Your task to perform on an android device: Search for "apple airpods pro" on walmart.com, select the first entry, add it to the cart, then select checkout. Image 0: 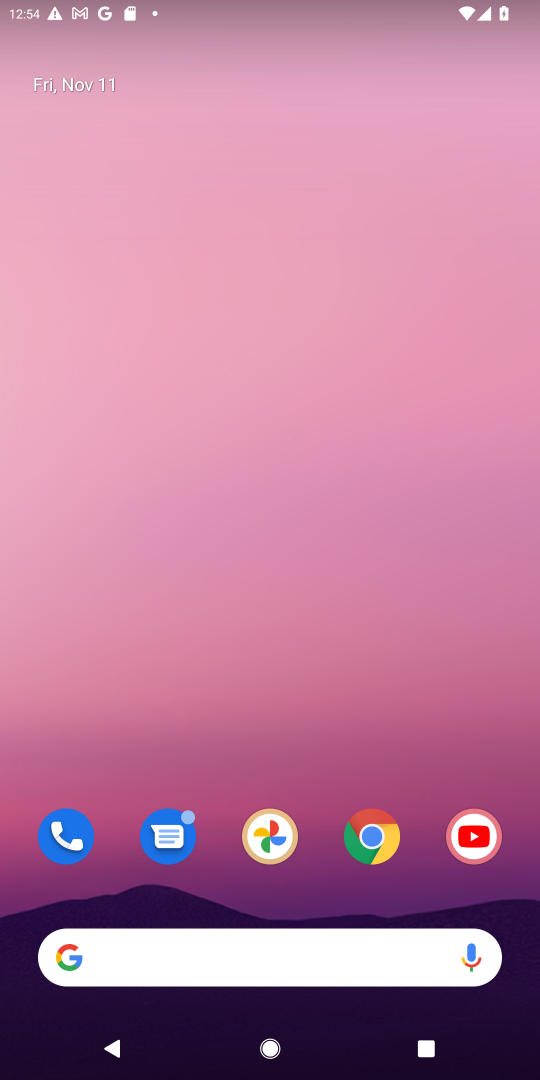
Step 0: click (262, 964)
Your task to perform on an android device: Search for "apple airpods pro" on walmart.com, select the first entry, add it to the cart, then select checkout. Image 1: 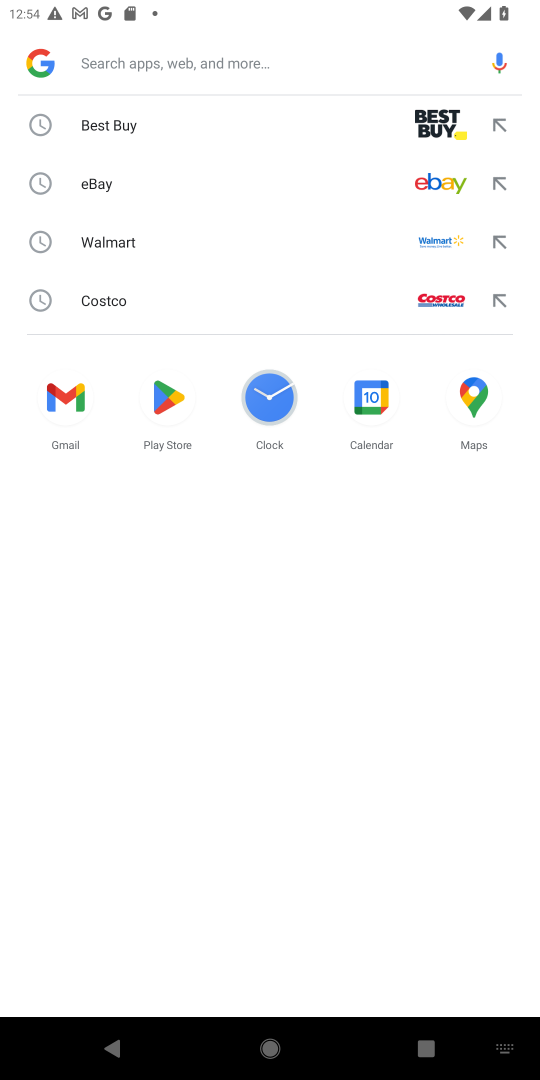
Step 1: click (147, 251)
Your task to perform on an android device: Search for "apple airpods pro" on walmart.com, select the first entry, add it to the cart, then select checkout. Image 2: 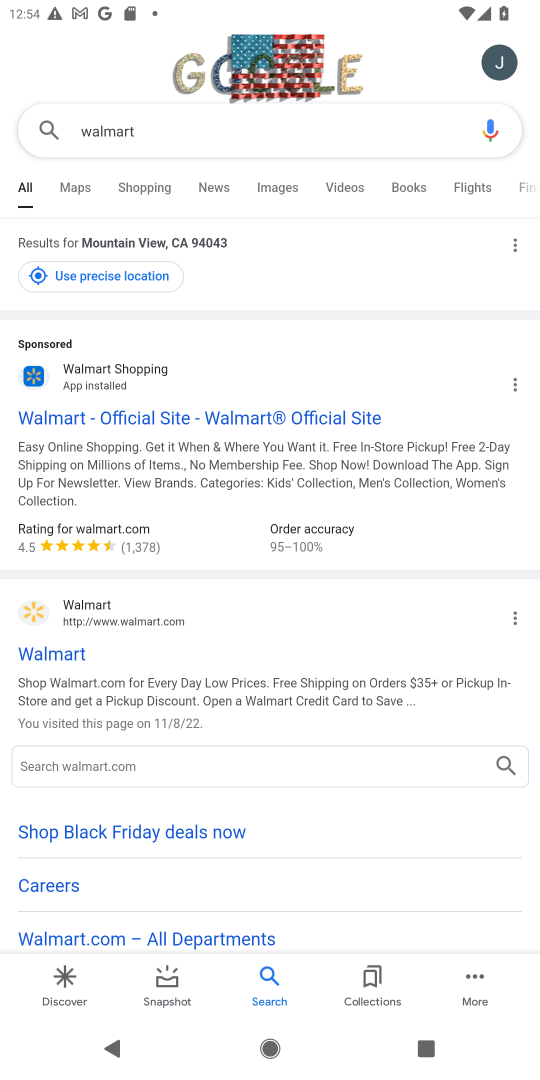
Step 2: click (53, 651)
Your task to perform on an android device: Search for "apple airpods pro" on walmart.com, select the first entry, add it to the cart, then select checkout. Image 3: 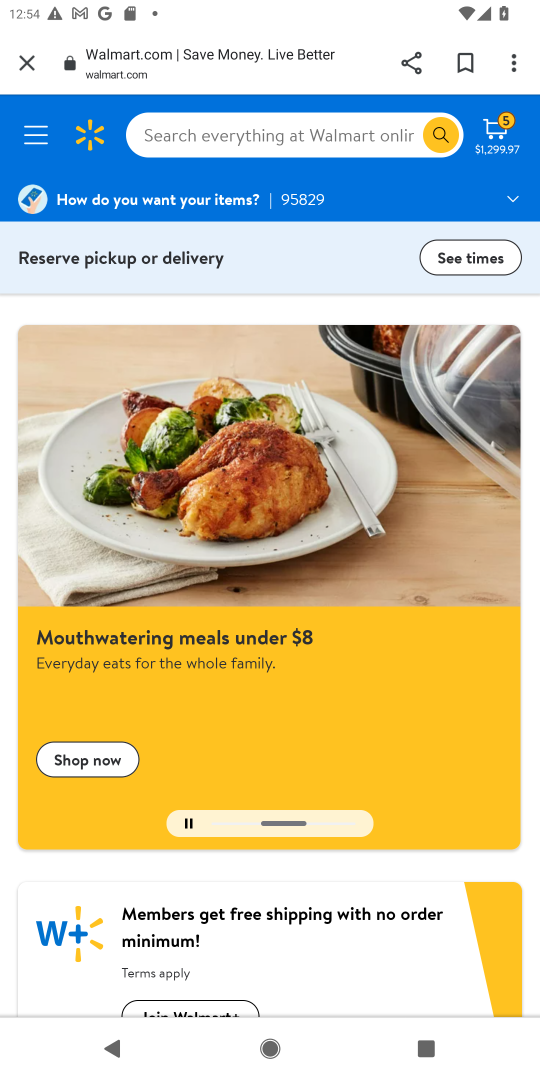
Step 3: click (289, 139)
Your task to perform on an android device: Search for "apple airpods pro" on walmart.com, select the first entry, add it to the cart, then select checkout. Image 4: 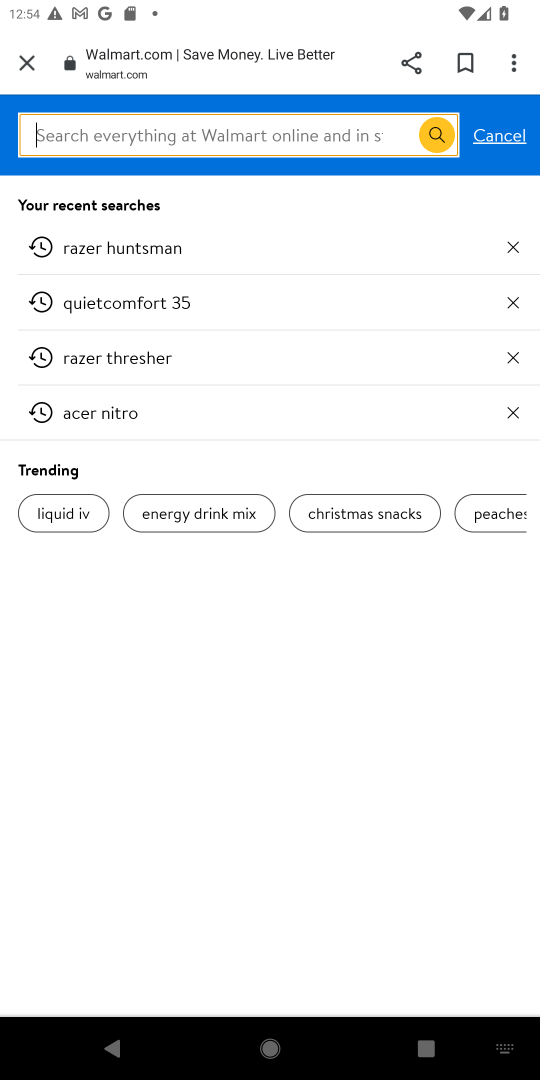
Step 4: type "apple airpods pro"
Your task to perform on an android device: Search for "apple airpods pro" on walmart.com, select the first entry, add it to the cart, then select checkout. Image 5: 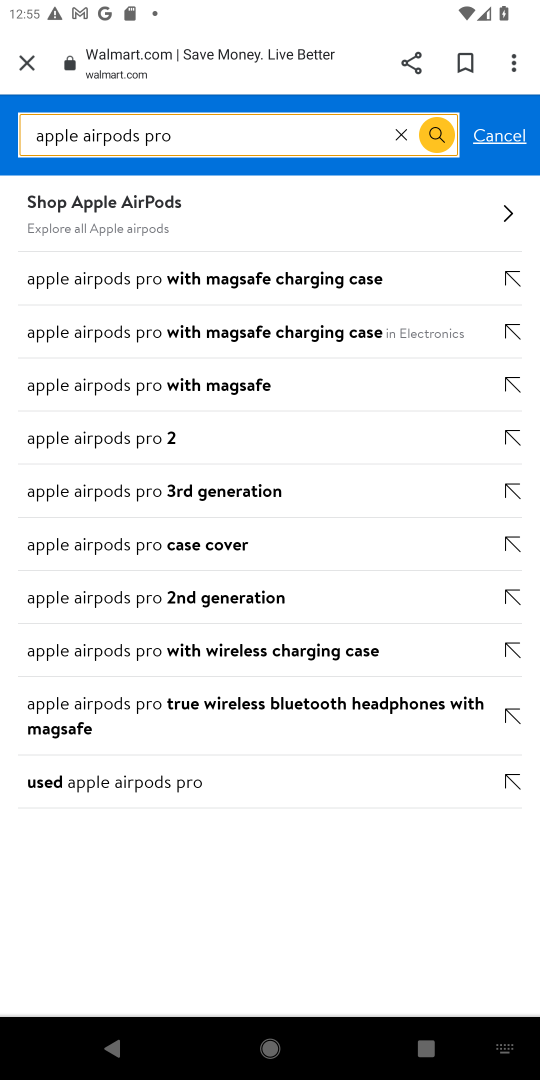
Step 5: click (438, 136)
Your task to perform on an android device: Search for "apple airpods pro" on walmart.com, select the first entry, add it to the cart, then select checkout. Image 6: 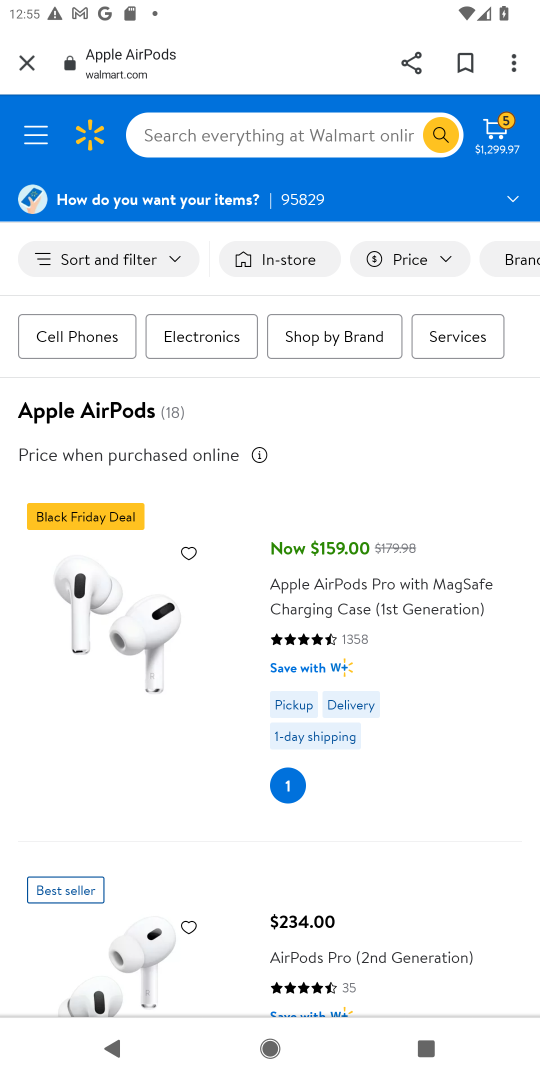
Step 6: click (294, 789)
Your task to perform on an android device: Search for "apple airpods pro" on walmart.com, select the first entry, add it to the cart, then select checkout. Image 7: 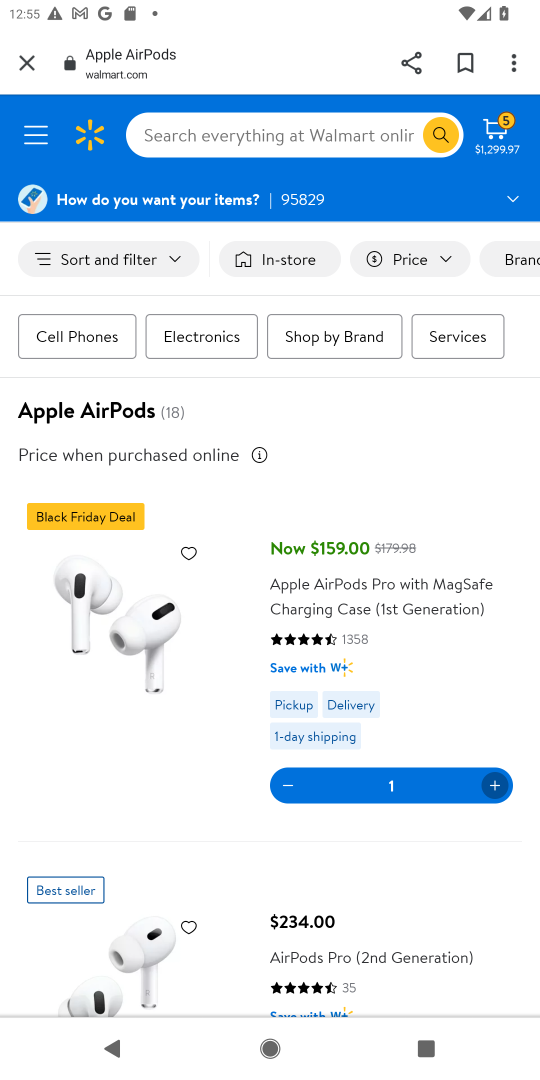
Step 7: click (486, 135)
Your task to perform on an android device: Search for "apple airpods pro" on walmart.com, select the first entry, add it to the cart, then select checkout. Image 8: 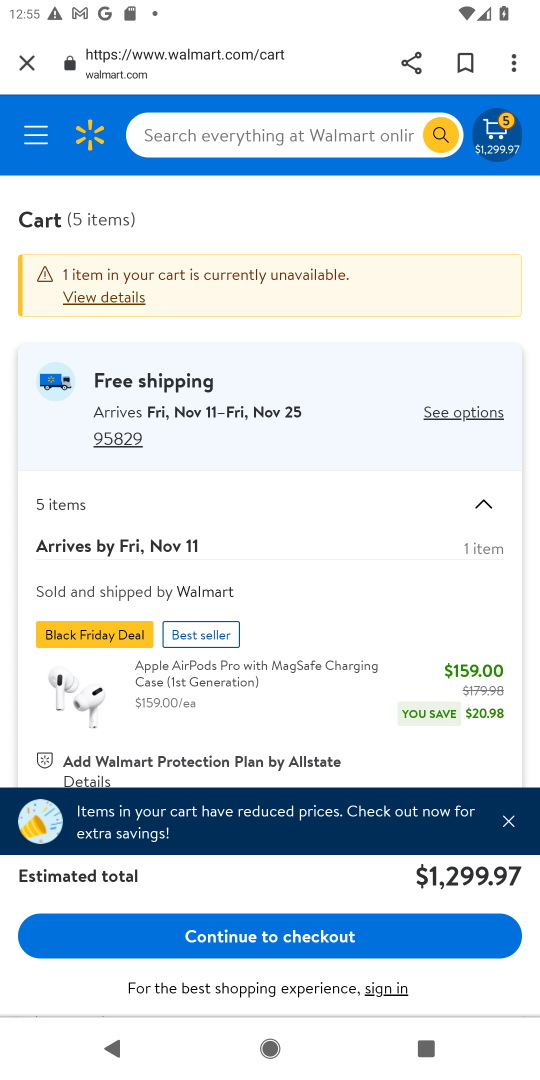
Step 8: click (267, 942)
Your task to perform on an android device: Search for "apple airpods pro" on walmart.com, select the first entry, add it to the cart, then select checkout. Image 9: 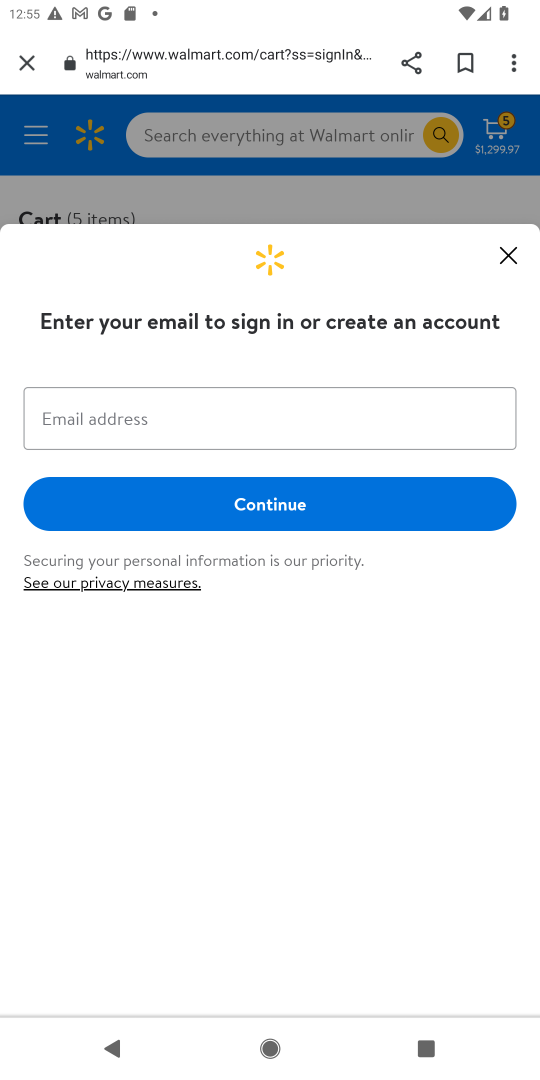
Step 9: task complete